Your task to perform on an android device: What's the weather going to be this weekend? Image 0: 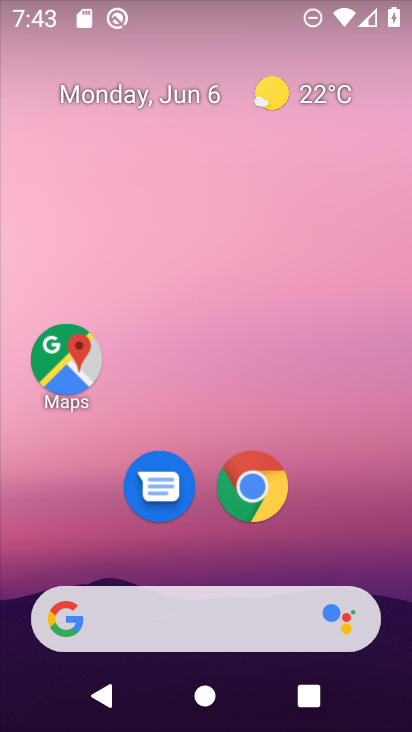
Step 0: drag from (399, 616) to (278, 3)
Your task to perform on an android device: What's the weather going to be this weekend? Image 1: 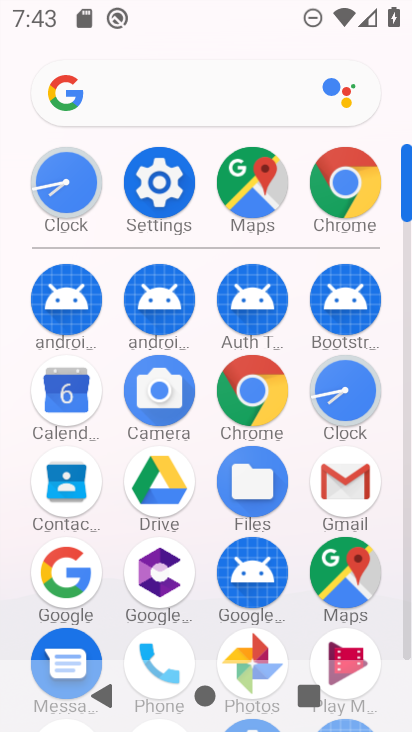
Step 1: click (69, 554)
Your task to perform on an android device: What's the weather going to be this weekend? Image 2: 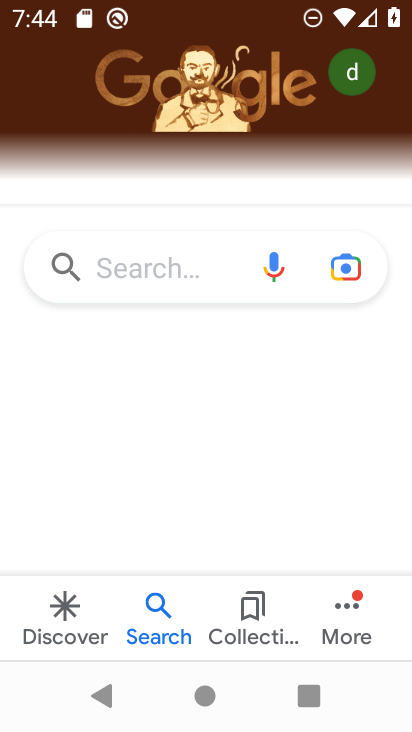
Step 2: click (138, 270)
Your task to perform on an android device: What's the weather going to be this weekend? Image 3: 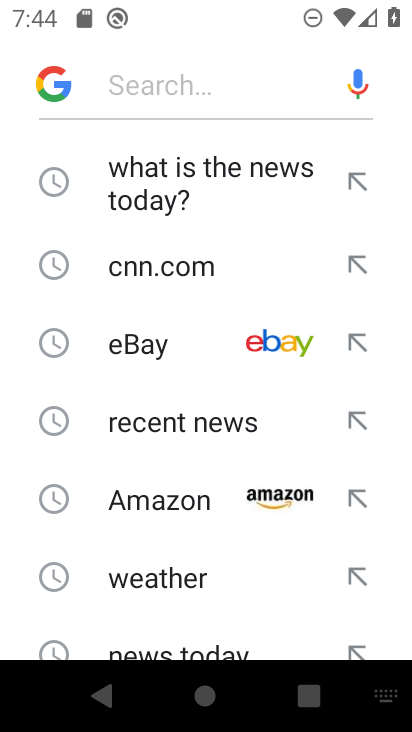
Step 3: drag from (119, 557) to (138, 5)
Your task to perform on an android device: What's the weather going to be this weekend? Image 4: 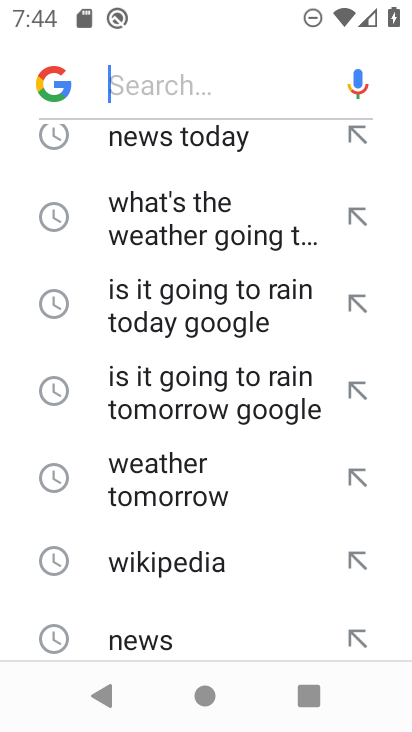
Step 4: drag from (207, 565) to (271, 181)
Your task to perform on an android device: What's the weather going to be this weekend? Image 5: 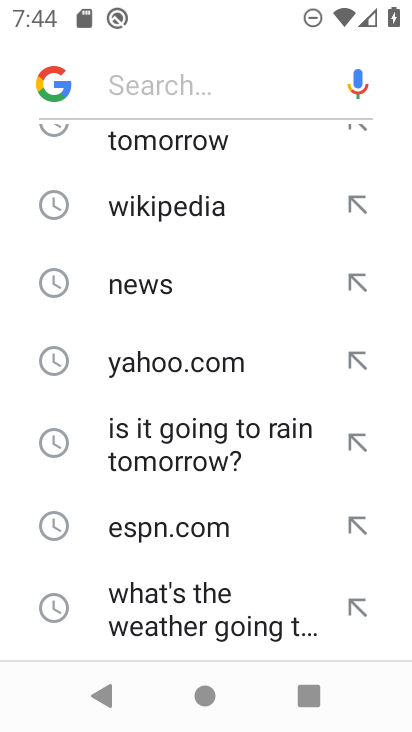
Step 5: drag from (227, 592) to (254, 246)
Your task to perform on an android device: What's the weather going to be this weekend? Image 6: 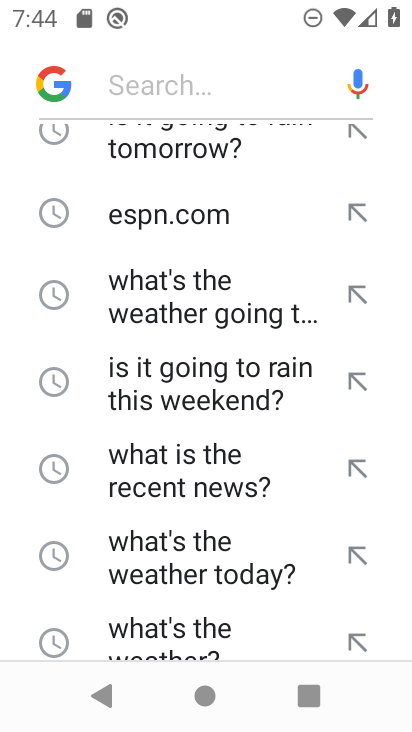
Step 6: drag from (192, 598) to (212, 259)
Your task to perform on an android device: What's the weather going to be this weekend? Image 7: 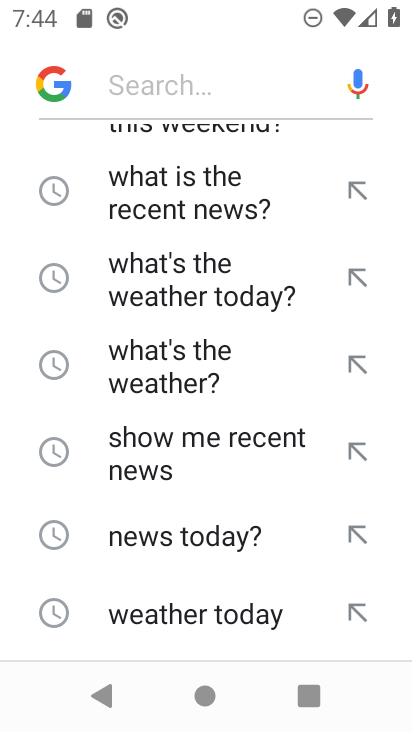
Step 7: drag from (187, 556) to (168, 161)
Your task to perform on an android device: What's the weather going to be this weekend? Image 8: 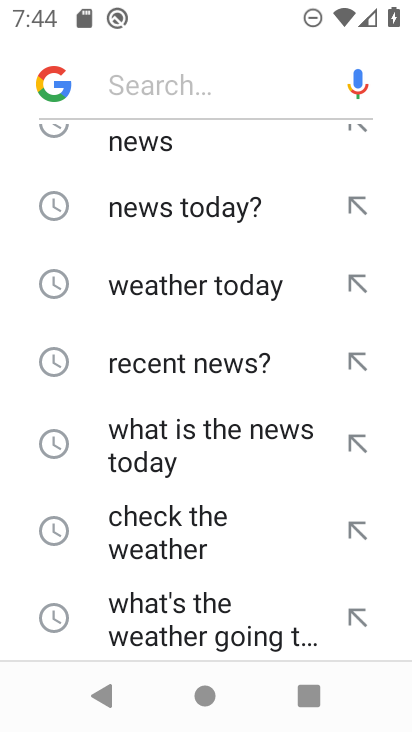
Step 8: drag from (167, 596) to (198, 332)
Your task to perform on an android device: What's the weather going to be this weekend? Image 9: 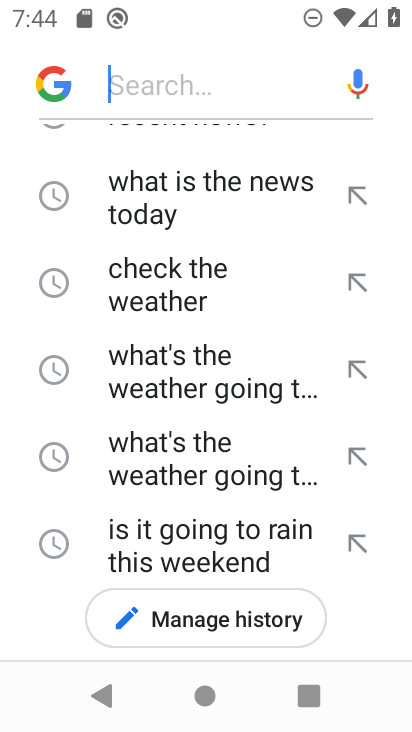
Step 9: click (210, 395)
Your task to perform on an android device: What's the weather going to be this weekend? Image 10: 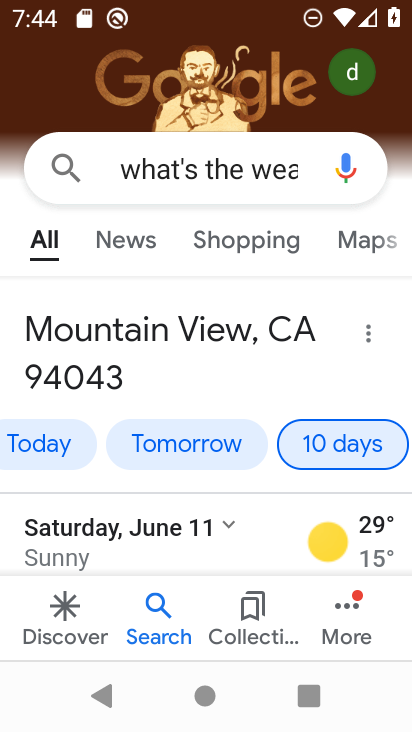
Step 10: task complete